Your task to perform on an android device: turn off picture-in-picture Image 0: 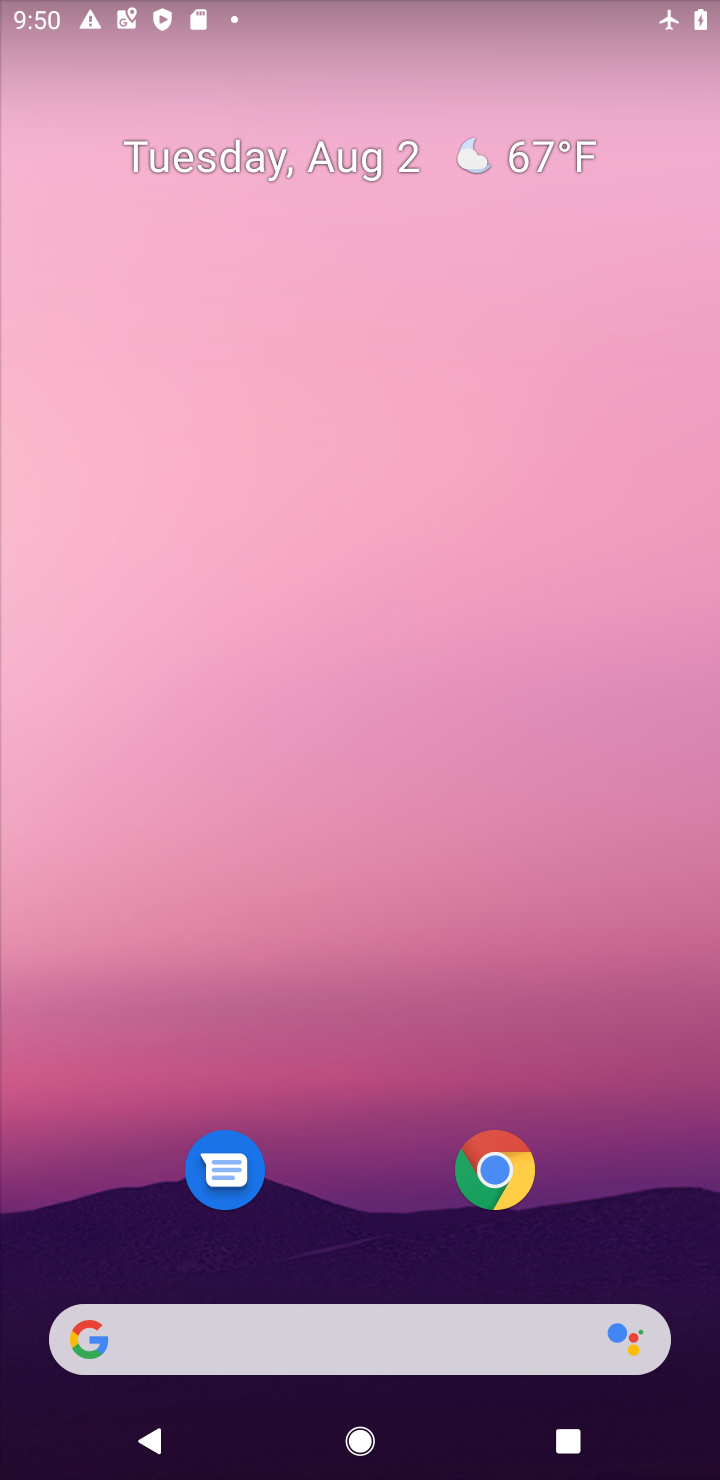
Step 0: drag from (342, 1223) to (358, 334)
Your task to perform on an android device: turn off picture-in-picture Image 1: 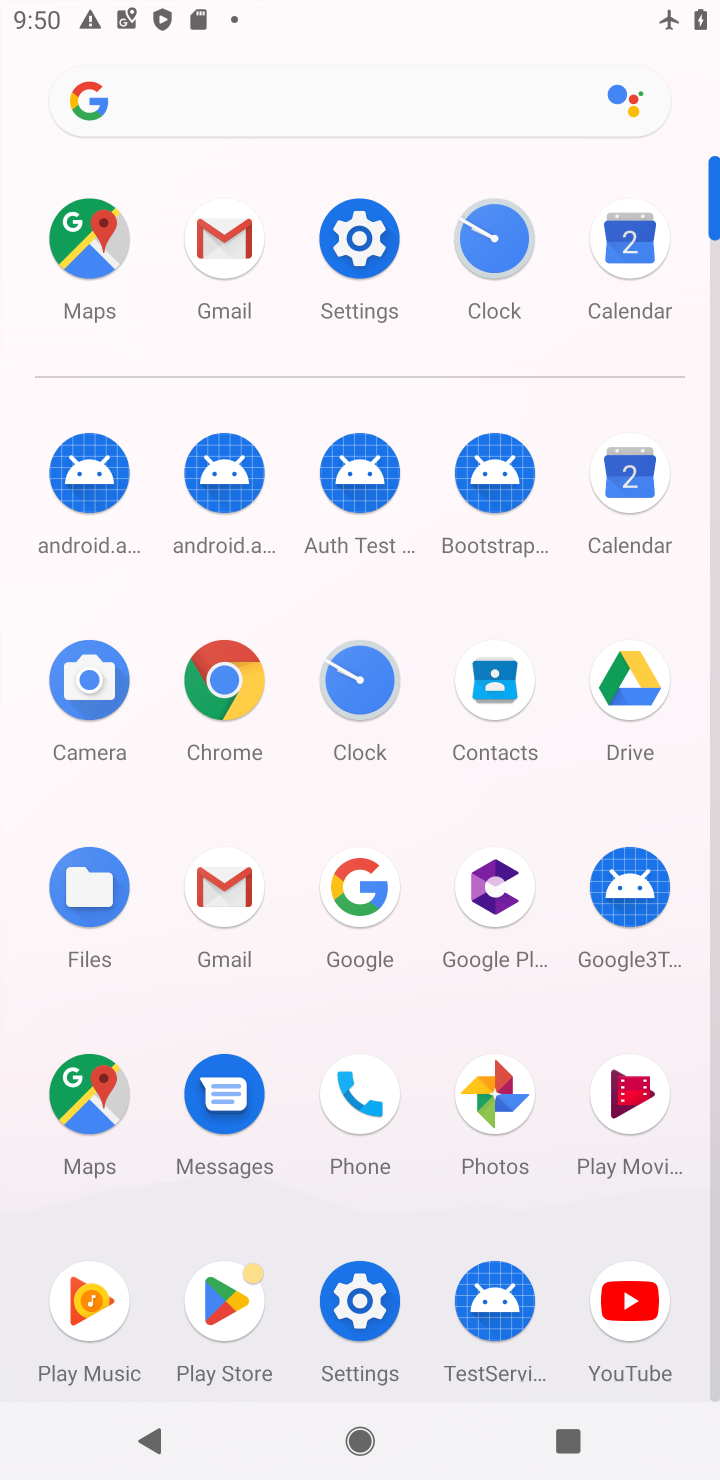
Step 1: click (358, 243)
Your task to perform on an android device: turn off picture-in-picture Image 2: 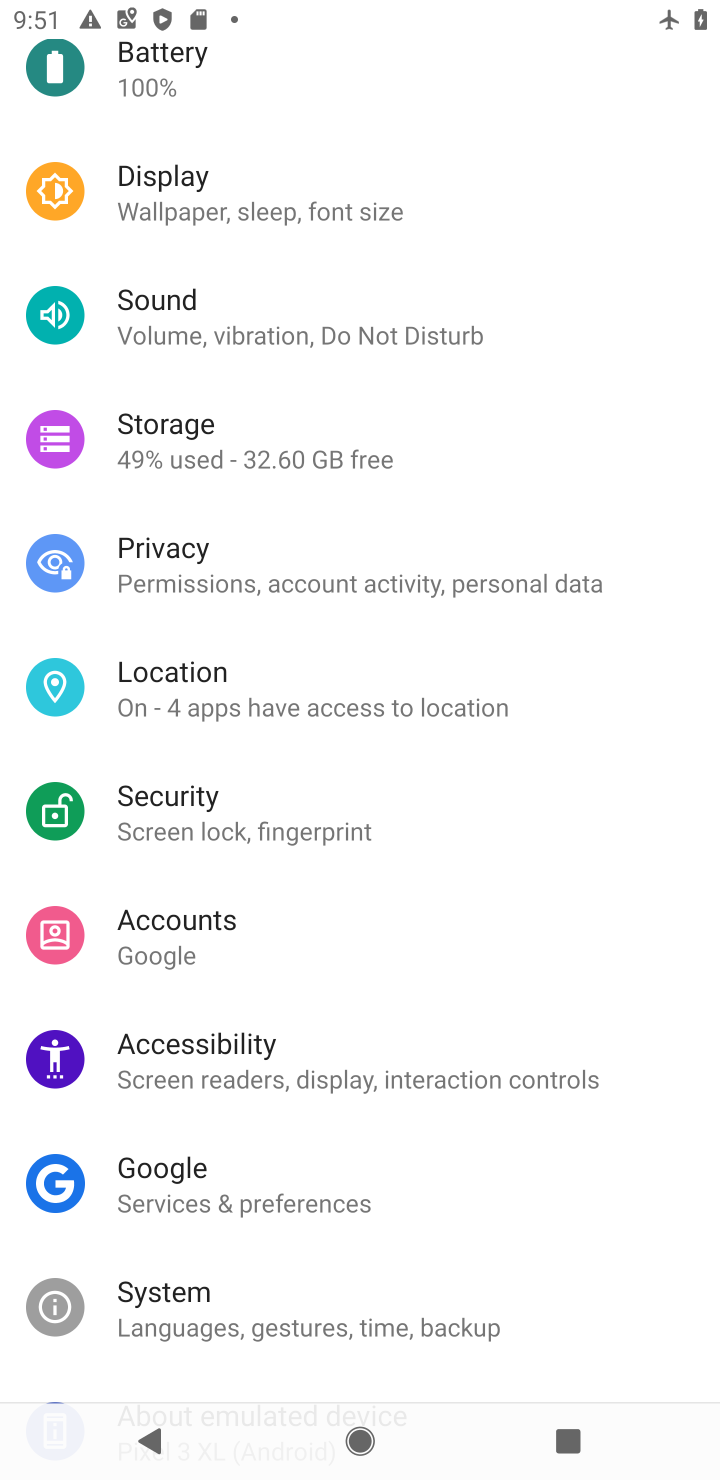
Step 2: drag from (258, 447) to (258, 741)
Your task to perform on an android device: turn off picture-in-picture Image 3: 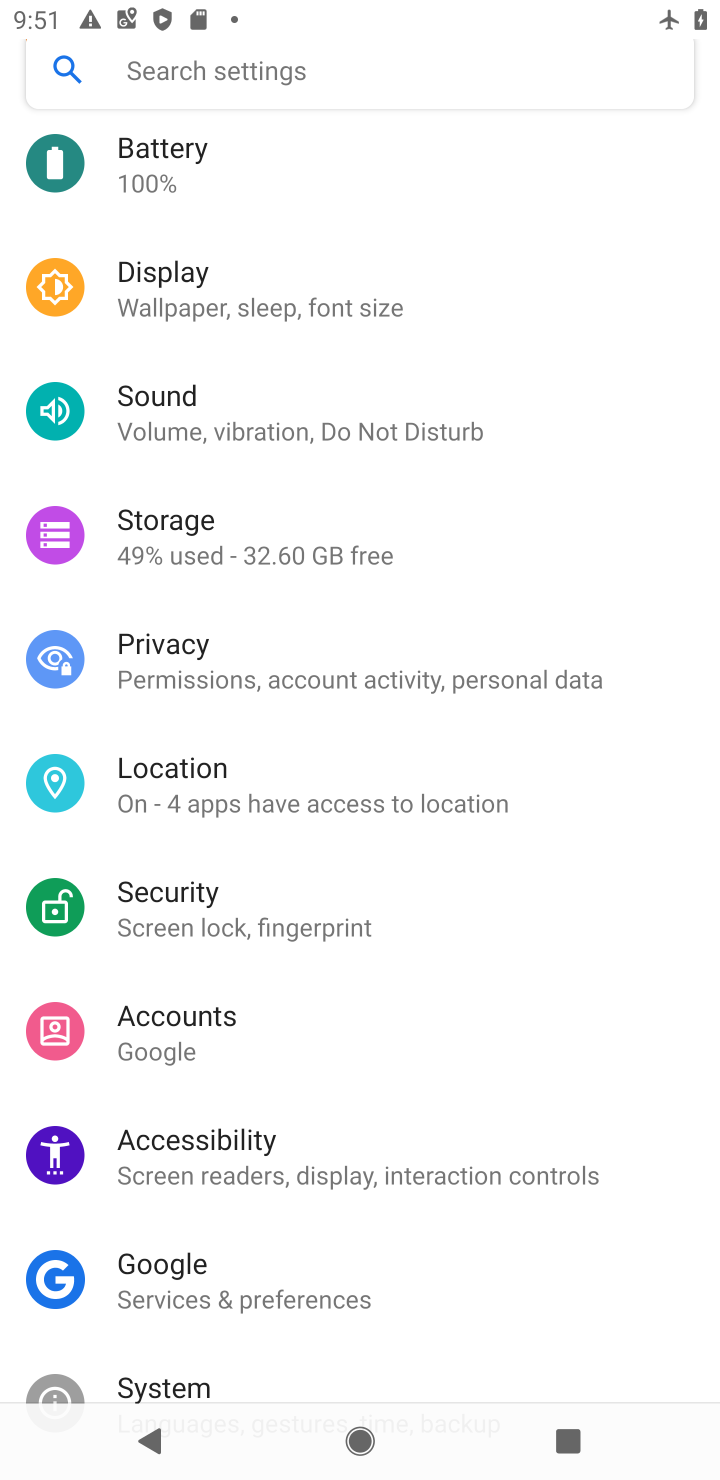
Step 3: drag from (231, 321) to (163, 748)
Your task to perform on an android device: turn off picture-in-picture Image 4: 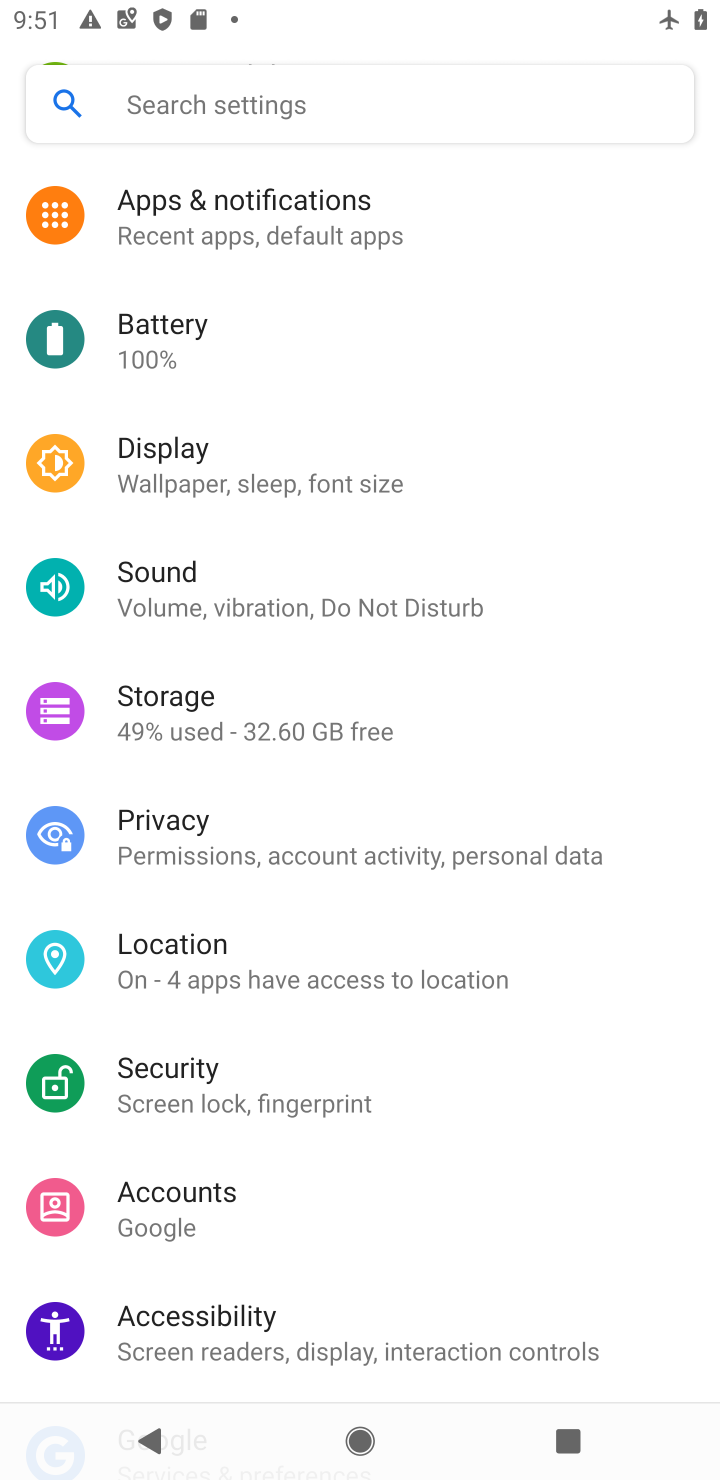
Step 4: click (225, 233)
Your task to perform on an android device: turn off picture-in-picture Image 5: 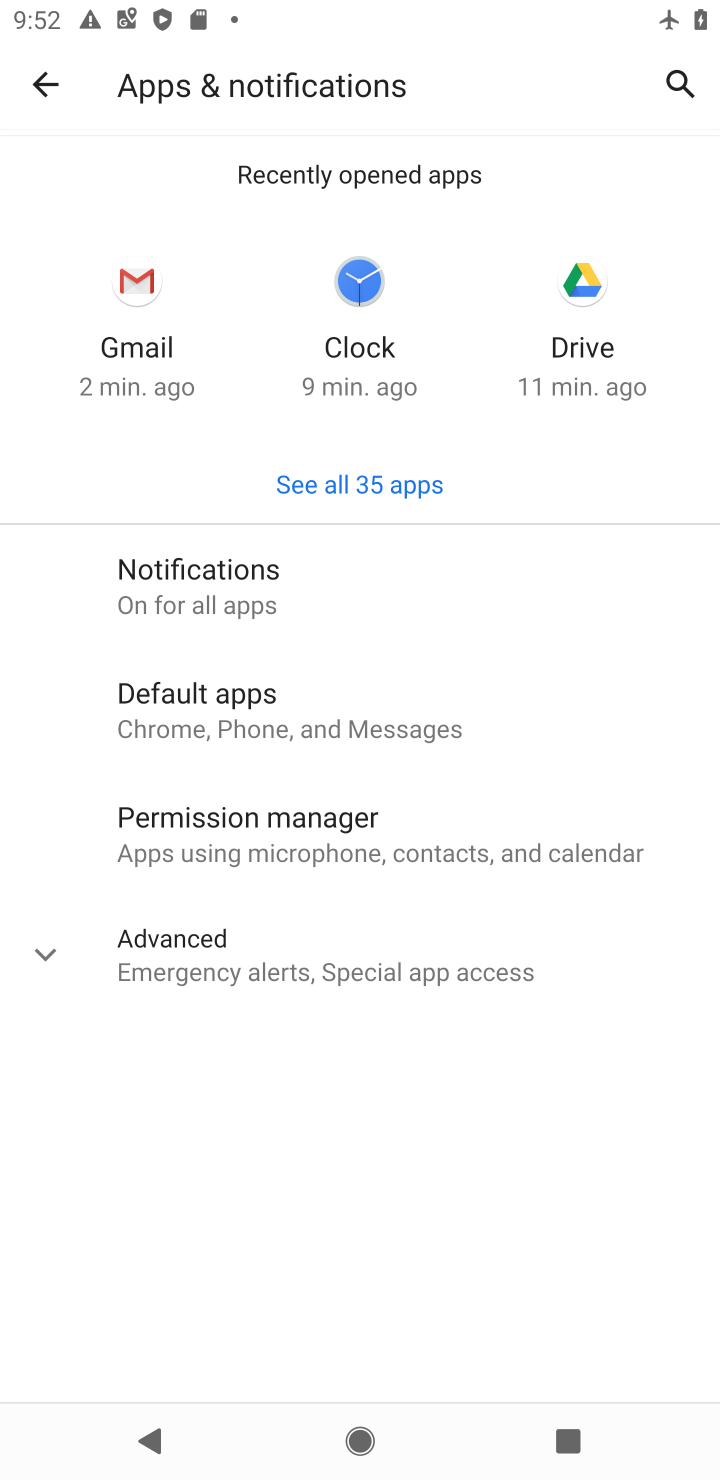
Step 5: click (189, 590)
Your task to perform on an android device: turn off picture-in-picture Image 6: 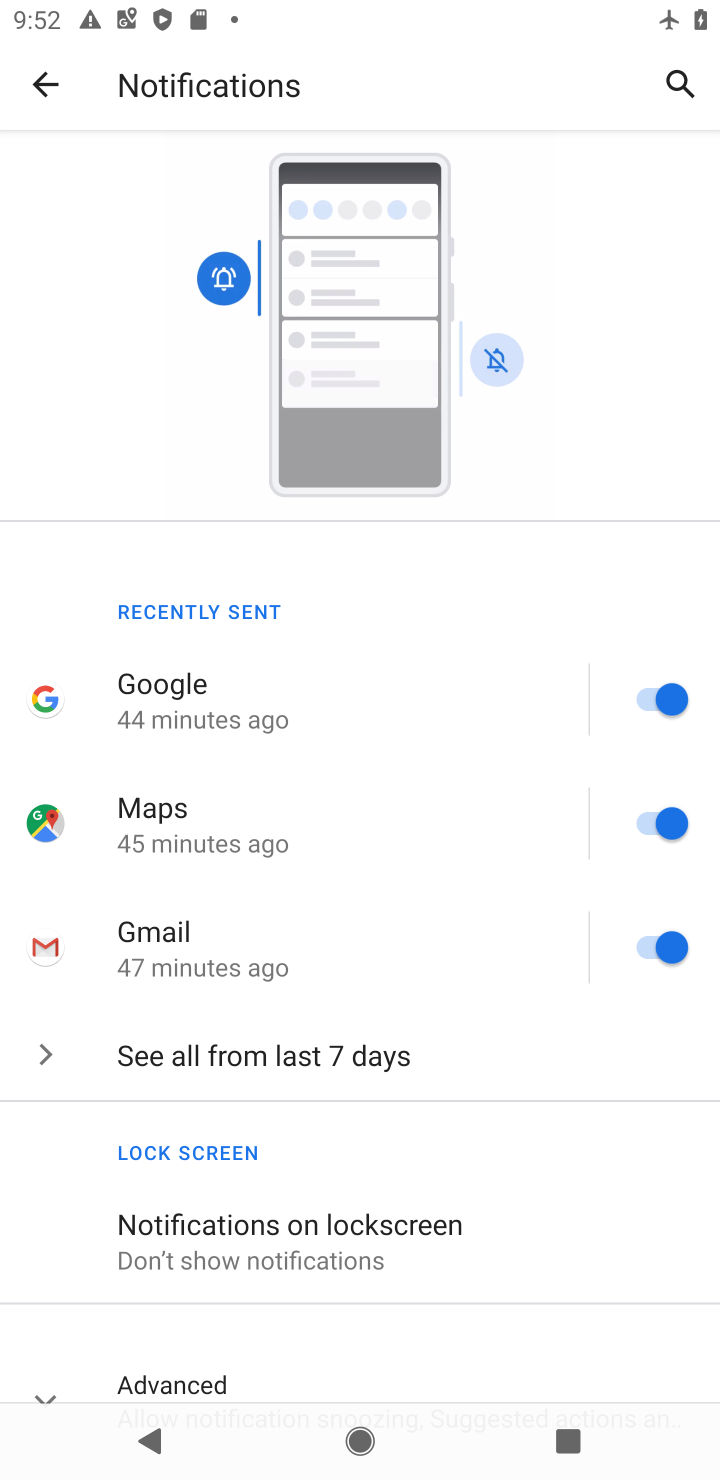
Step 6: drag from (263, 965) to (395, 285)
Your task to perform on an android device: turn off picture-in-picture Image 7: 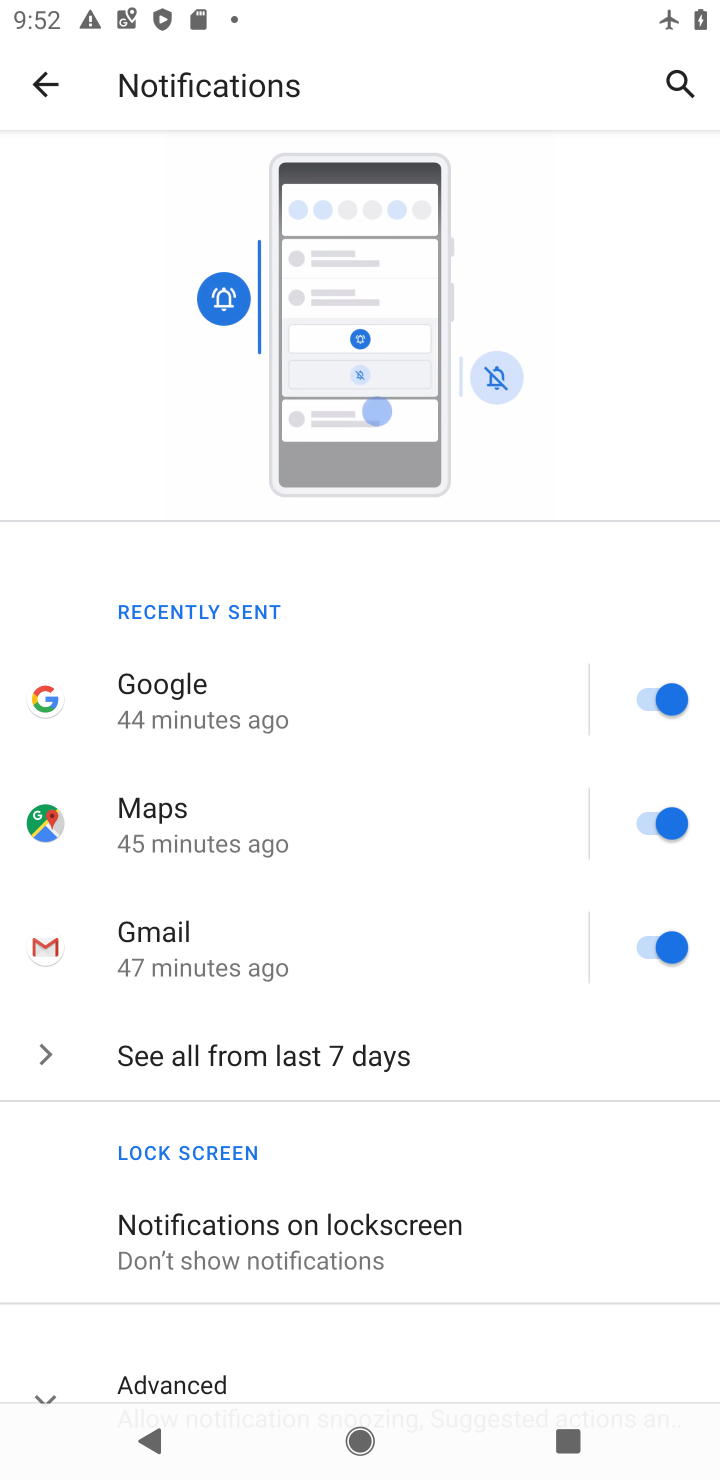
Step 7: click (49, 83)
Your task to perform on an android device: turn off picture-in-picture Image 8: 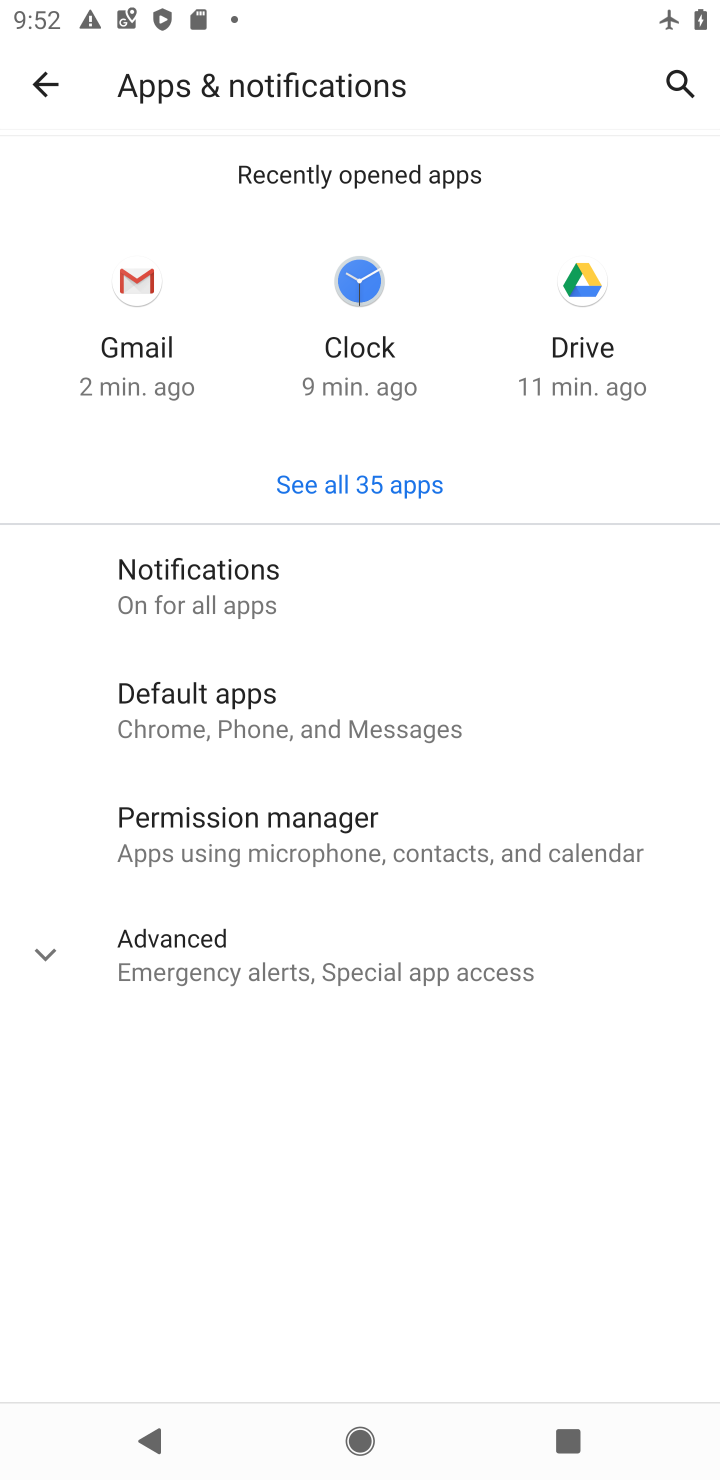
Step 8: click (226, 956)
Your task to perform on an android device: turn off picture-in-picture Image 9: 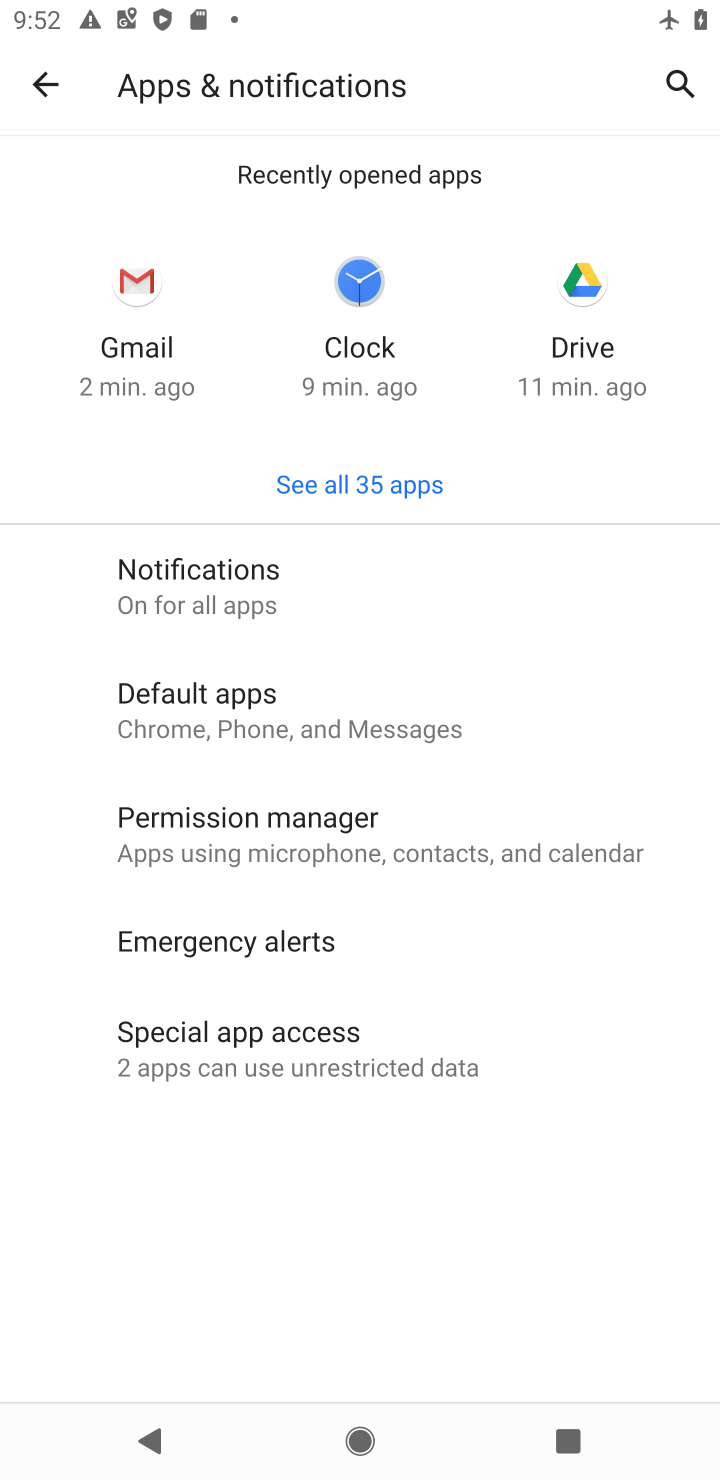
Step 9: click (176, 1073)
Your task to perform on an android device: turn off picture-in-picture Image 10: 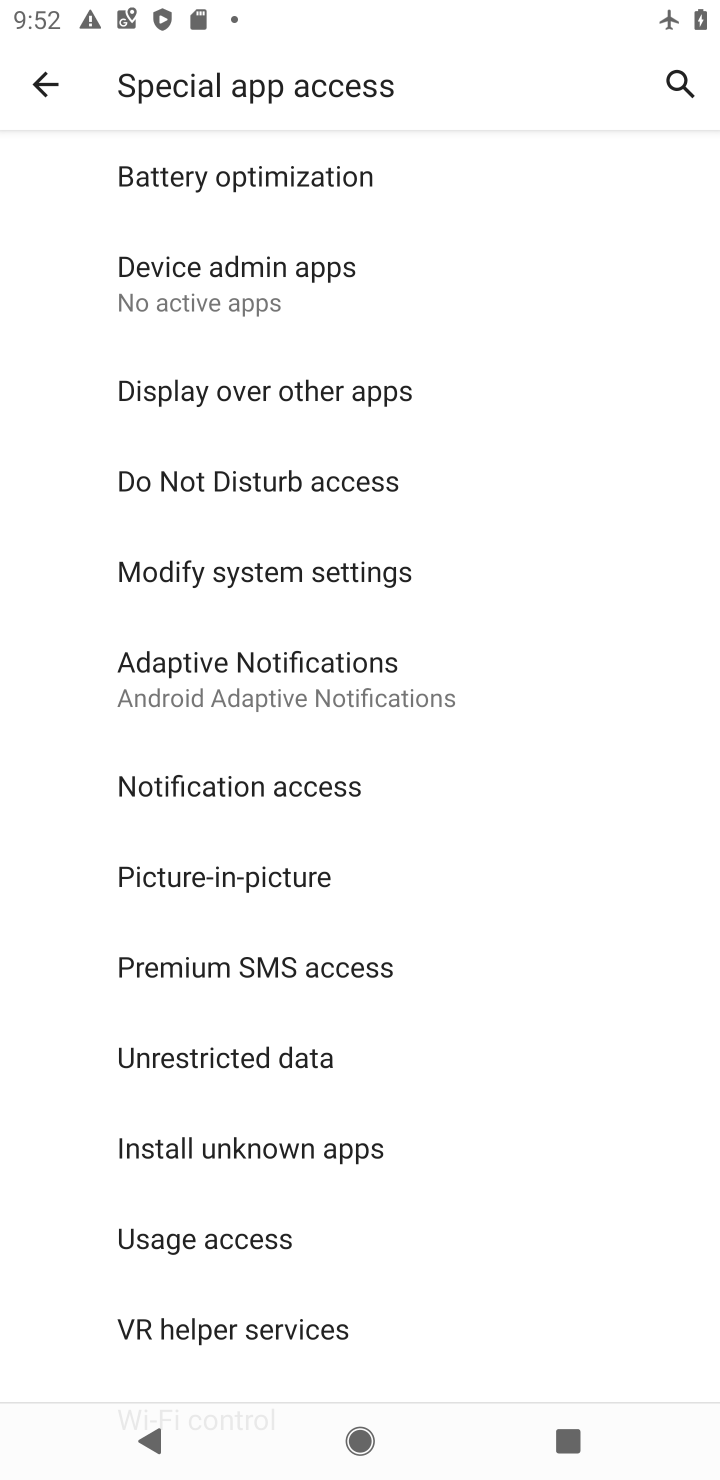
Step 10: click (221, 867)
Your task to perform on an android device: turn off picture-in-picture Image 11: 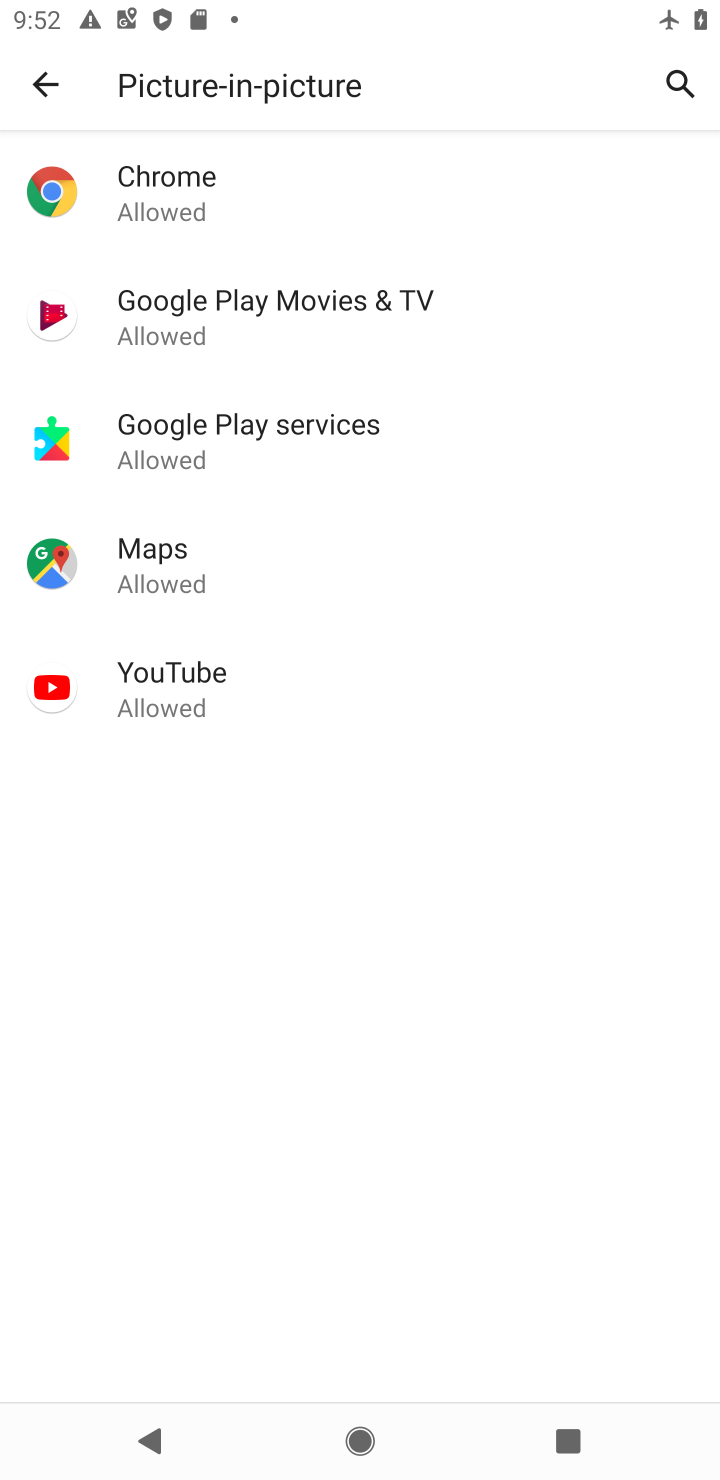
Step 11: click (182, 204)
Your task to perform on an android device: turn off picture-in-picture Image 12: 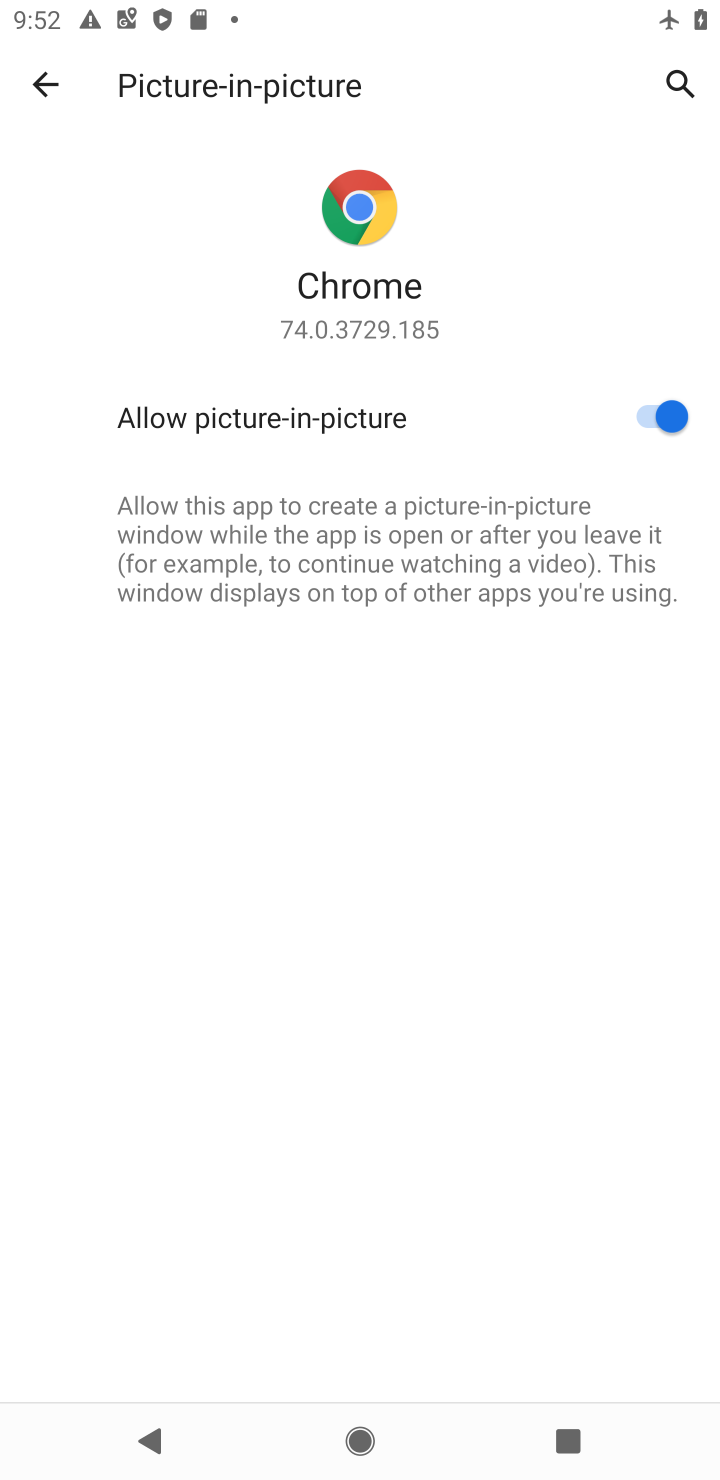
Step 12: click (638, 430)
Your task to perform on an android device: turn off picture-in-picture Image 13: 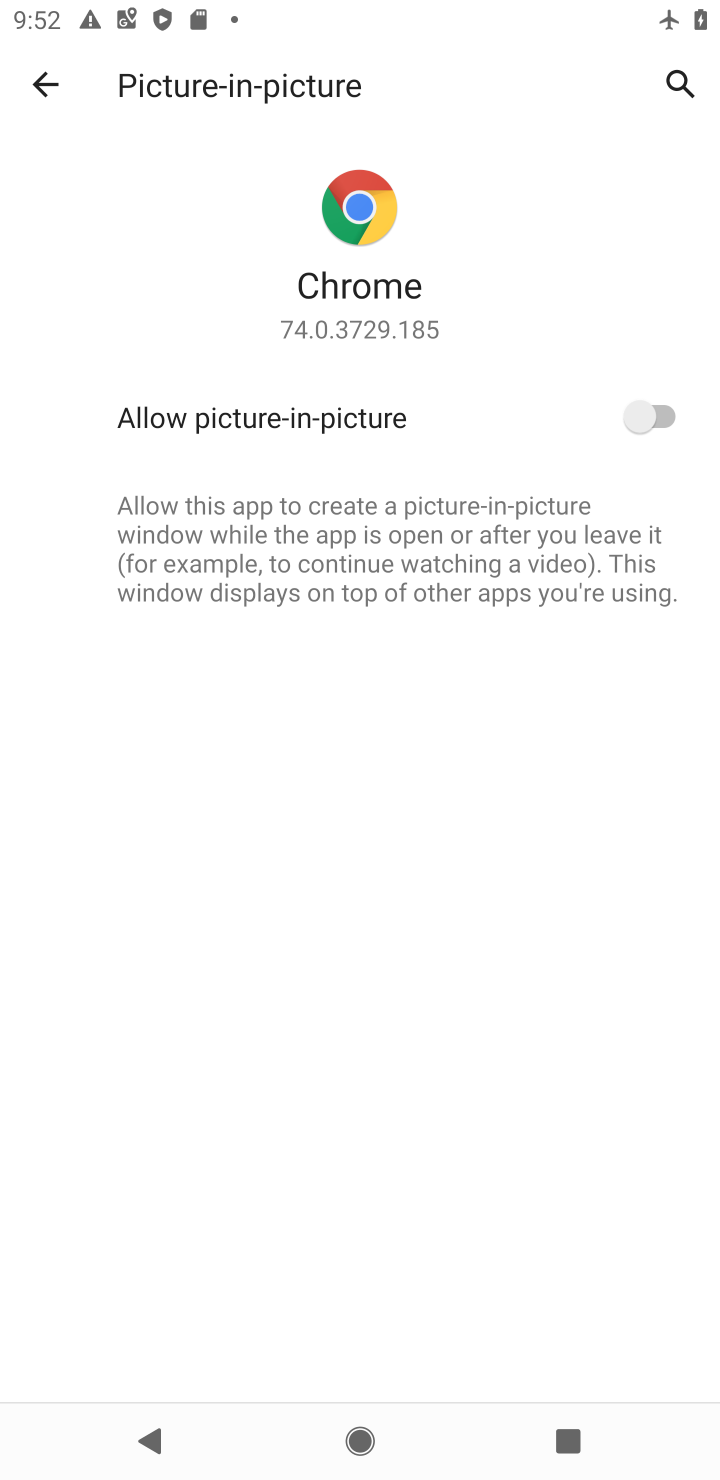
Step 13: task complete